Your task to perform on an android device: Open the phone app and click the voicemail tab. Image 0: 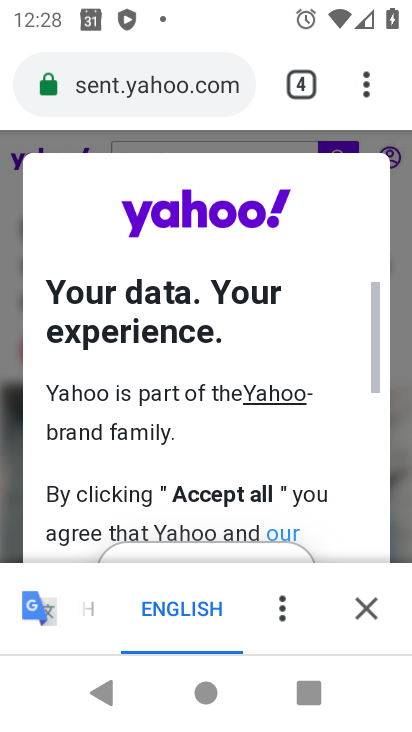
Step 0: press back button
Your task to perform on an android device: Open the phone app and click the voicemail tab. Image 1: 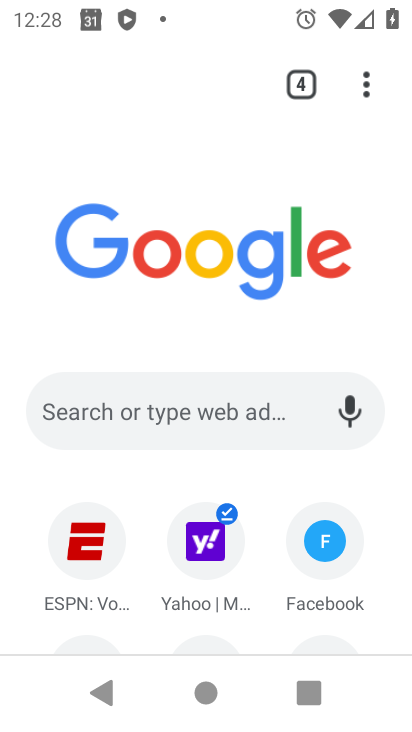
Step 1: press back button
Your task to perform on an android device: Open the phone app and click the voicemail tab. Image 2: 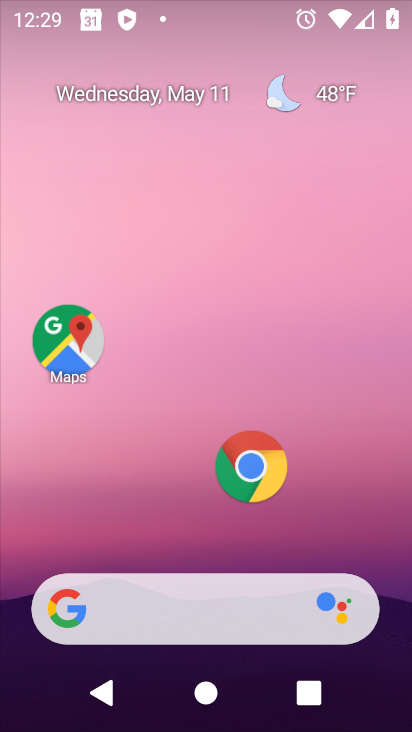
Step 2: drag from (150, 533) to (263, 29)
Your task to perform on an android device: Open the phone app and click the voicemail tab. Image 3: 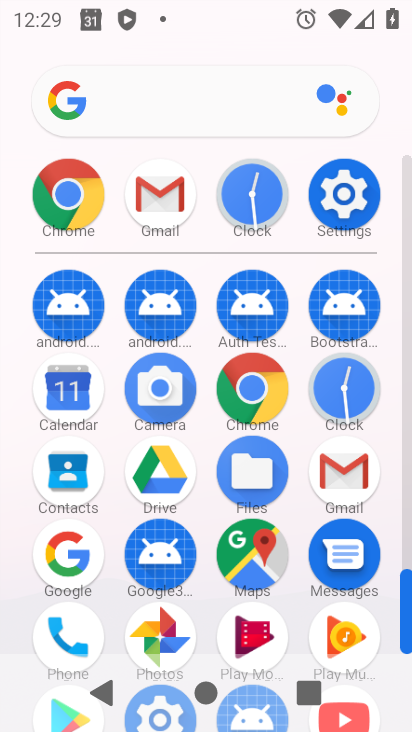
Step 3: click (73, 651)
Your task to perform on an android device: Open the phone app and click the voicemail tab. Image 4: 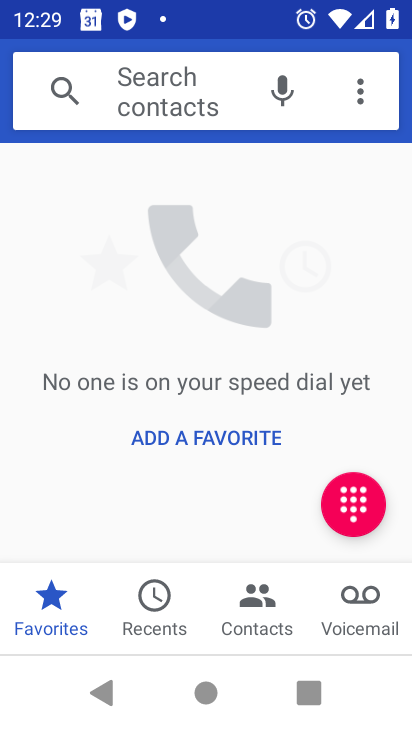
Step 4: click (369, 614)
Your task to perform on an android device: Open the phone app and click the voicemail tab. Image 5: 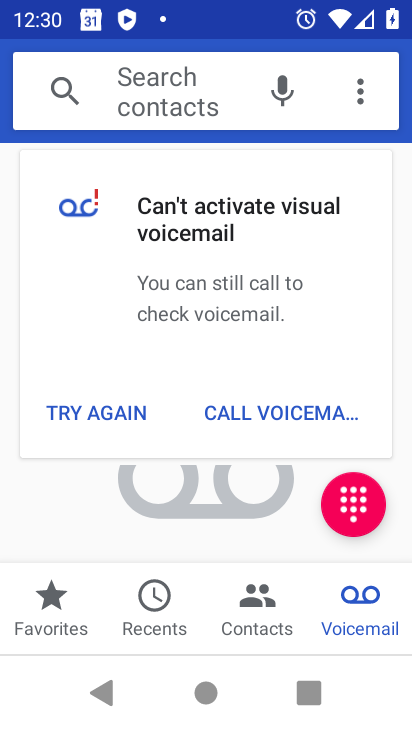
Step 5: task complete